Your task to perform on an android device: Go to ESPN.com Image 0: 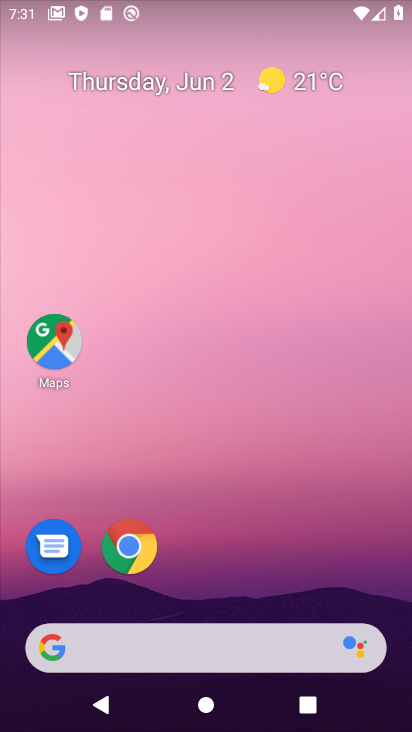
Step 0: drag from (292, 389) to (289, 147)
Your task to perform on an android device: Go to ESPN.com Image 1: 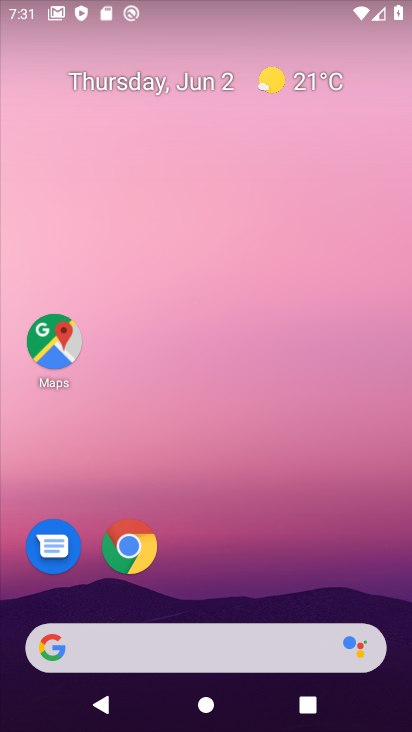
Step 1: drag from (272, 528) to (274, 201)
Your task to perform on an android device: Go to ESPN.com Image 2: 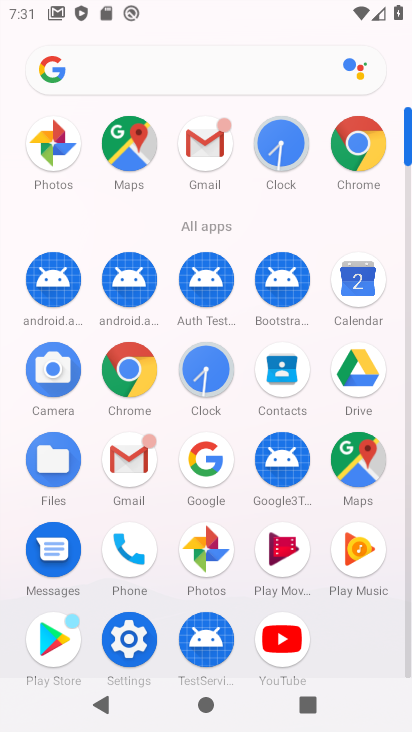
Step 2: click (118, 388)
Your task to perform on an android device: Go to ESPN.com Image 3: 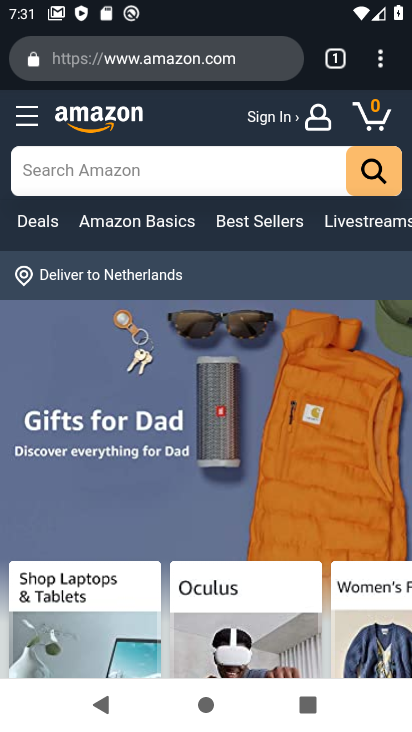
Step 3: click (204, 55)
Your task to perform on an android device: Go to ESPN.com Image 4: 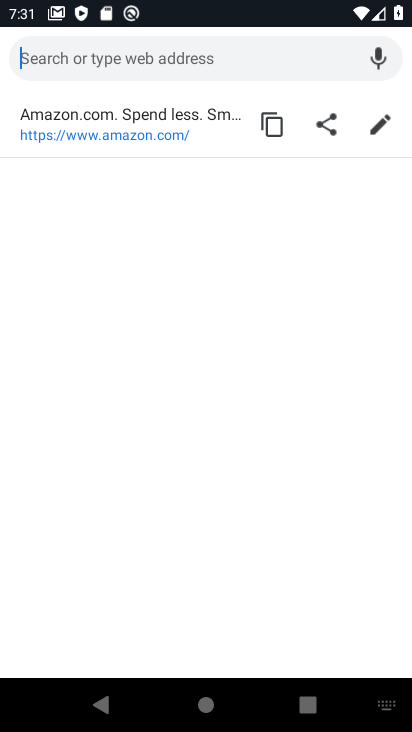
Step 4: type "espn.com"
Your task to perform on an android device: Go to ESPN.com Image 5: 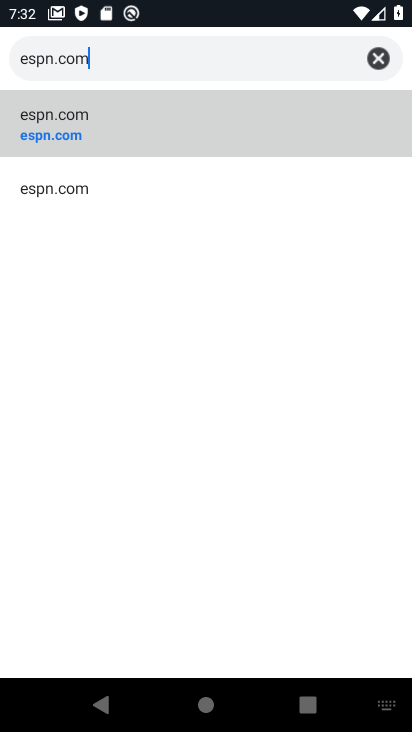
Step 5: click (93, 107)
Your task to perform on an android device: Go to ESPN.com Image 6: 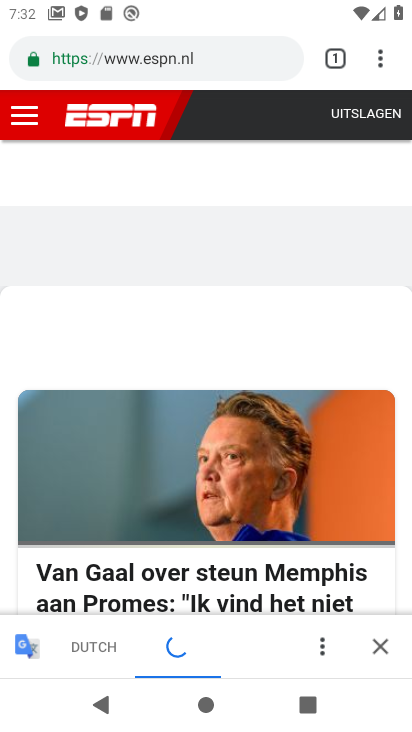
Step 6: task complete